Your task to perform on an android device: Open calendar and show me the third week of next month Image 0: 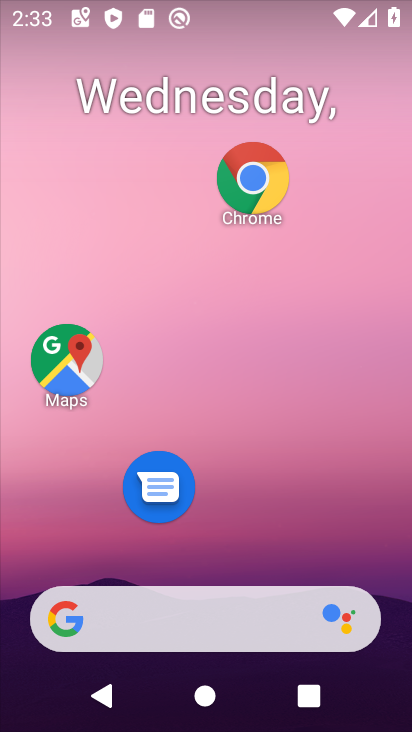
Step 0: drag from (253, 544) to (275, 140)
Your task to perform on an android device: Open calendar and show me the third week of next month Image 1: 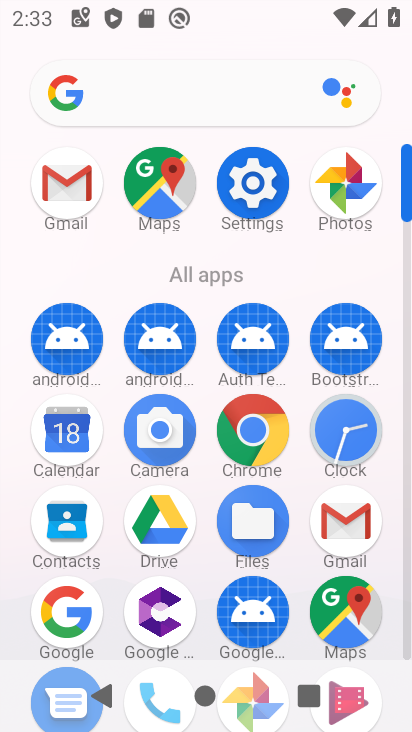
Step 1: click (63, 430)
Your task to perform on an android device: Open calendar and show me the third week of next month Image 2: 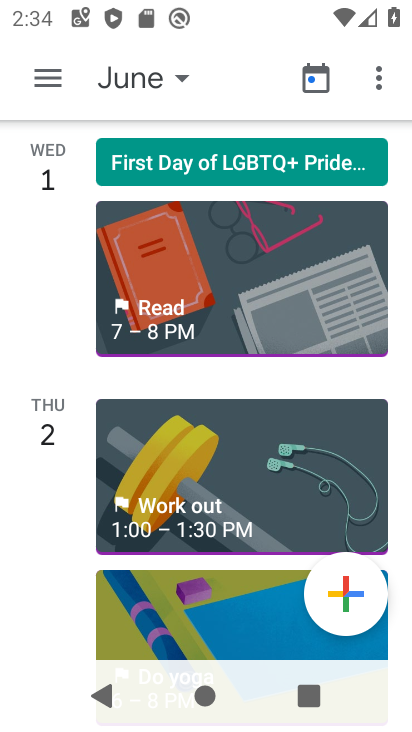
Step 2: click (155, 74)
Your task to perform on an android device: Open calendar and show me the third week of next month Image 3: 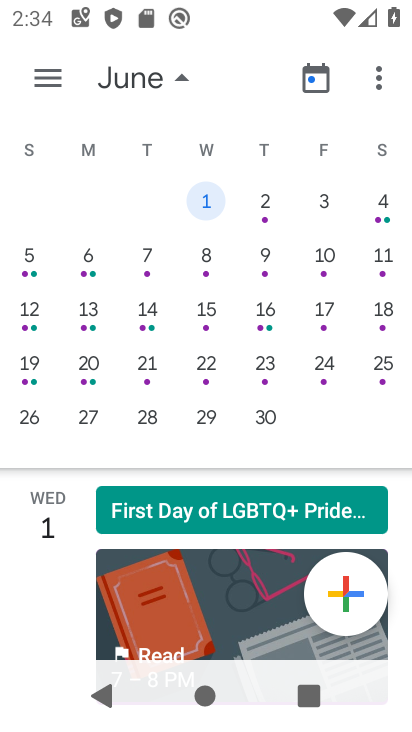
Step 3: click (38, 313)
Your task to perform on an android device: Open calendar and show me the third week of next month Image 4: 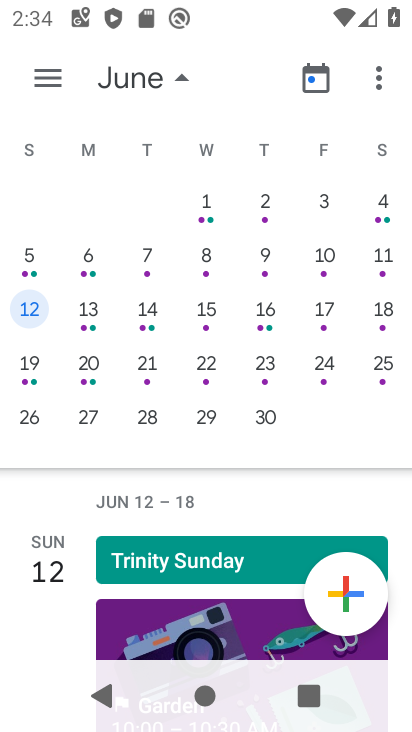
Step 4: task complete